Your task to perform on an android device: Go to Yahoo.com Image 0: 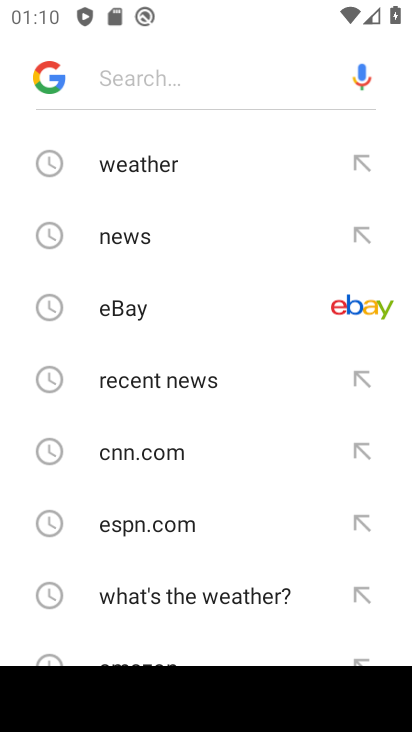
Step 0: type "yahoo.com"
Your task to perform on an android device: Go to Yahoo.com Image 1: 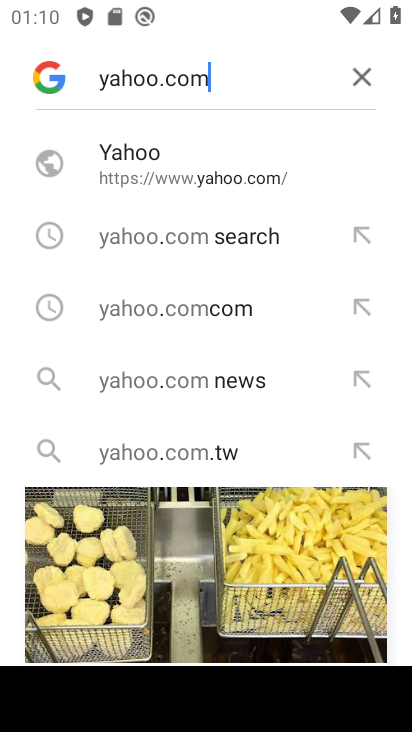
Step 1: click (235, 181)
Your task to perform on an android device: Go to Yahoo.com Image 2: 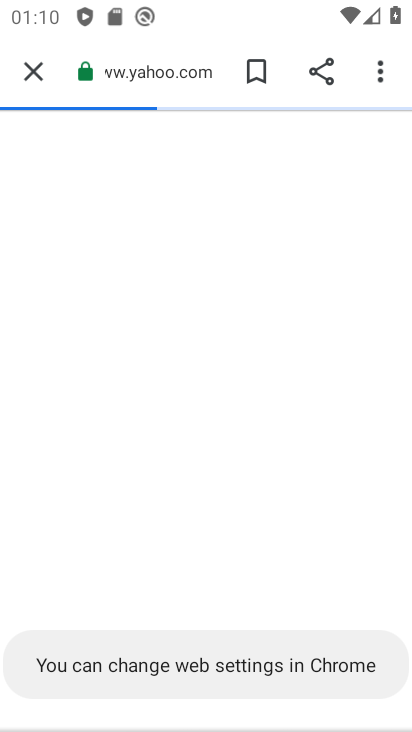
Step 2: task complete